Your task to perform on an android device: delete location history Image 0: 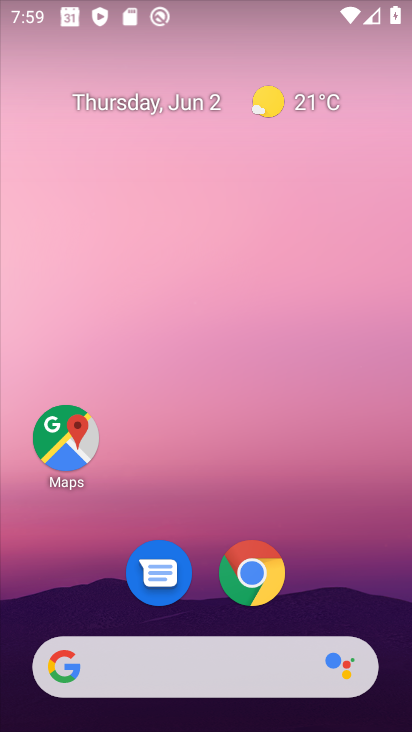
Step 0: drag from (317, 582) to (245, 119)
Your task to perform on an android device: delete location history Image 1: 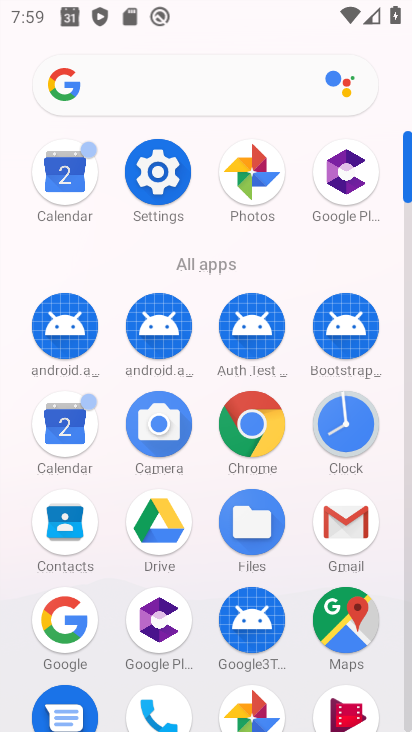
Step 1: click (157, 174)
Your task to perform on an android device: delete location history Image 2: 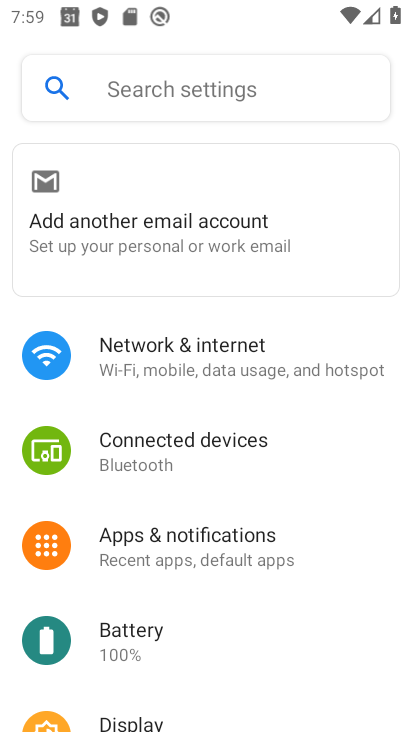
Step 2: drag from (224, 665) to (162, 157)
Your task to perform on an android device: delete location history Image 3: 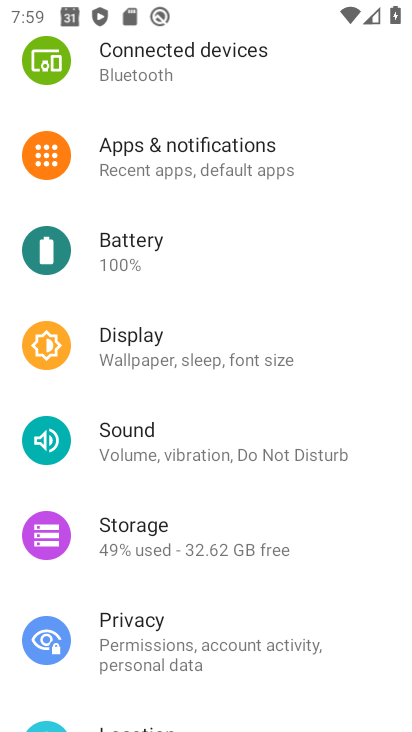
Step 3: drag from (164, 666) to (126, 384)
Your task to perform on an android device: delete location history Image 4: 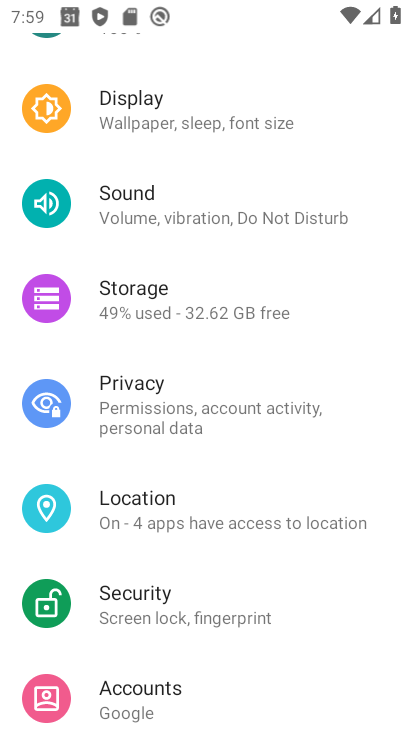
Step 4: click (223, 496)
Your task to perform on an android device: delete location history Image 5: 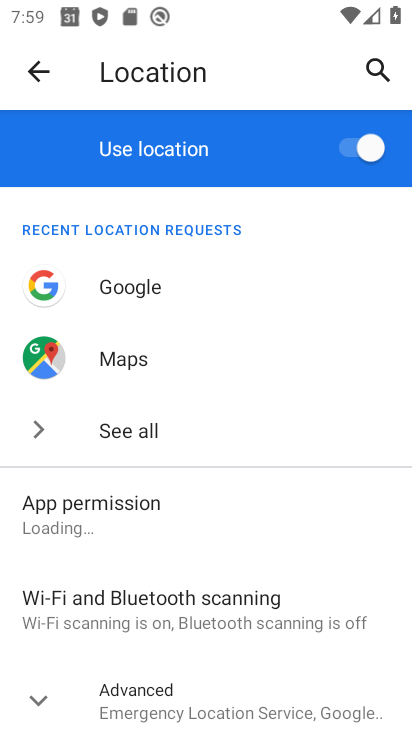
Step 5: click (158, 703)
Your task to perform on an android device: delete location history Image 6: 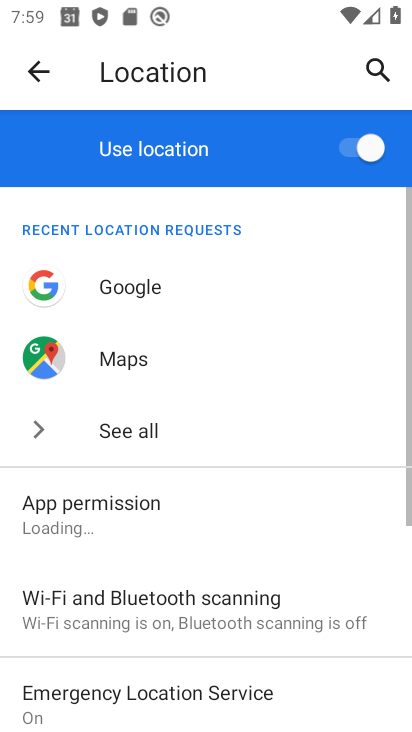
Step 6: drag from (206, 629) to (169, 322)
Your task to perform on an android device: delete location history Image 7: 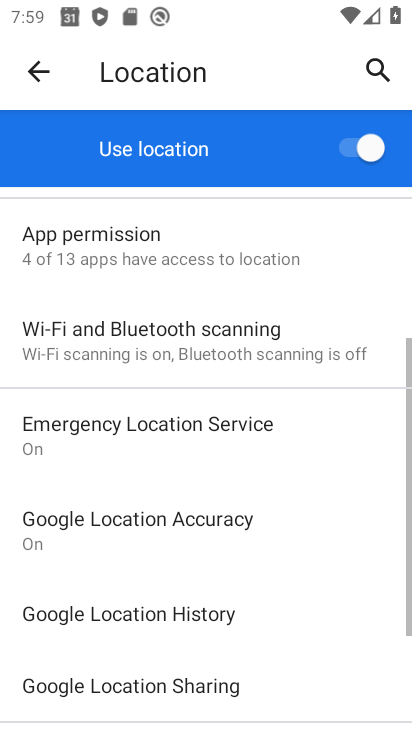
Step 7: click (151, 621)
Your task to perform on an android device: delete location history Image 8: 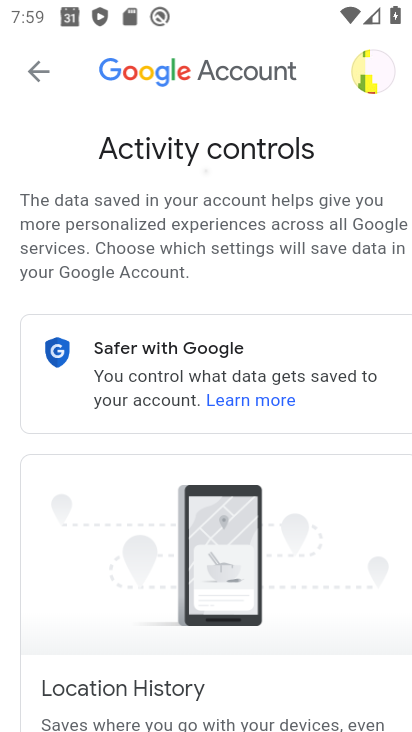
Step 8: drag from (258, 610) to (222, 176)
Your task to perform on an android device: delete location history Image 9: 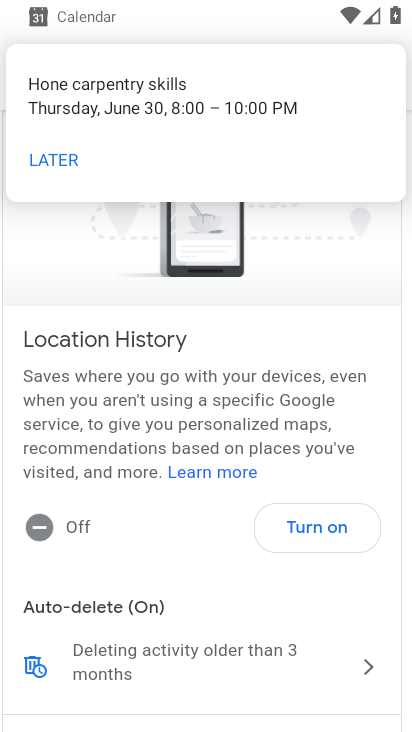
Step 9: click (35, 664)
Your task to perform on an android device: delete location history Image 10: 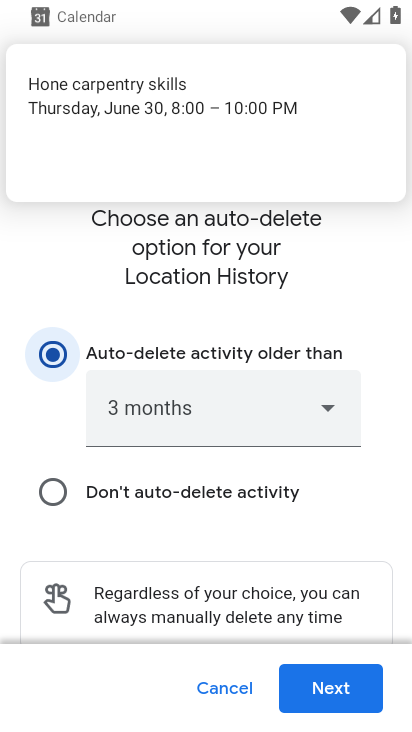
Step 10: click (337, 686)
Your task to perform on an android device: delete location history Image 11: 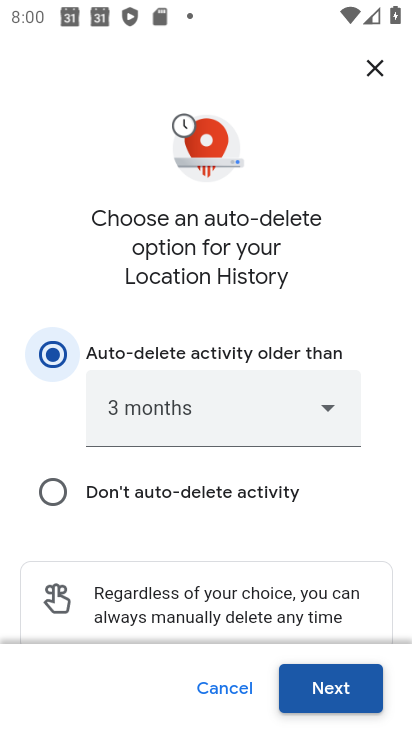
Step 11: click (337, 686)
Your task to perform on an android device: delete location history Image 12: 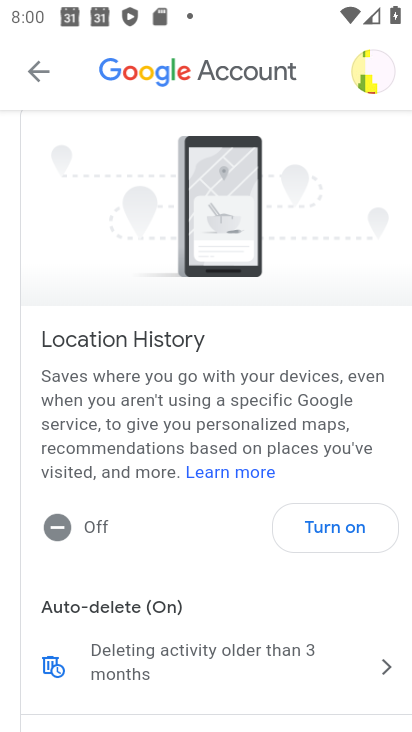
Step 12: task complete